Your task to perform on an android device: toggle notifications settings in the gmail app Image 0: 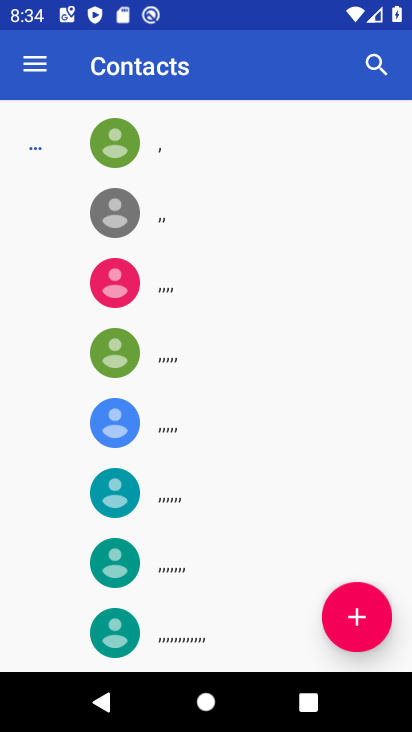
Step 0: press home button
Your task to perform on an android device: toggle notifications settings in the gmail app Image 1: 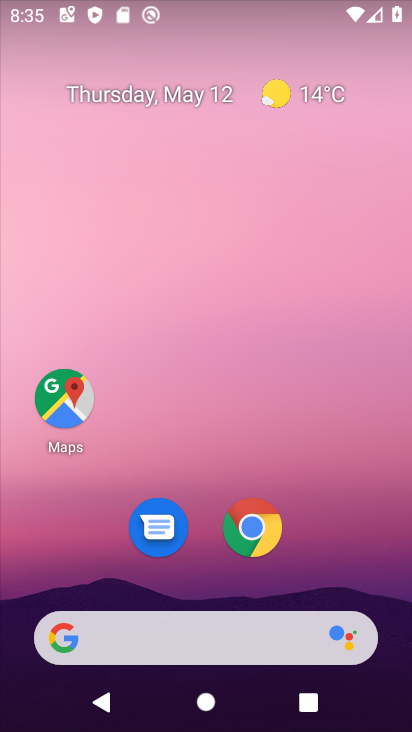
Step 1: drag from (345, 556) to (341, 2)
Your task to perform on an android device: toggle notifications settings in the gmail app Image 2: 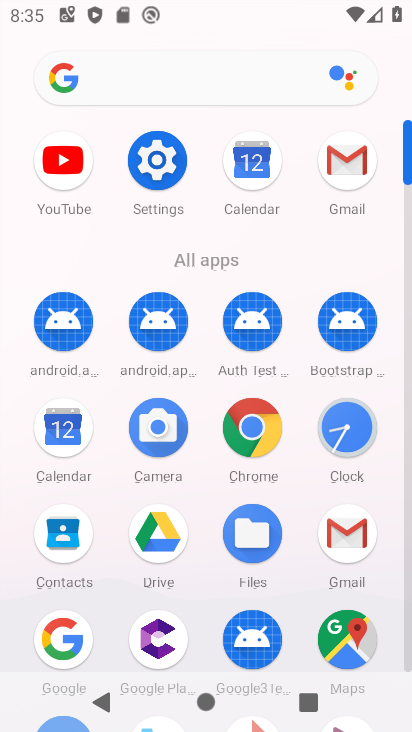
Step 2: click (341, 153)
Your task to perform on an android device: toggle notifications settings in the gmail app Image 3: 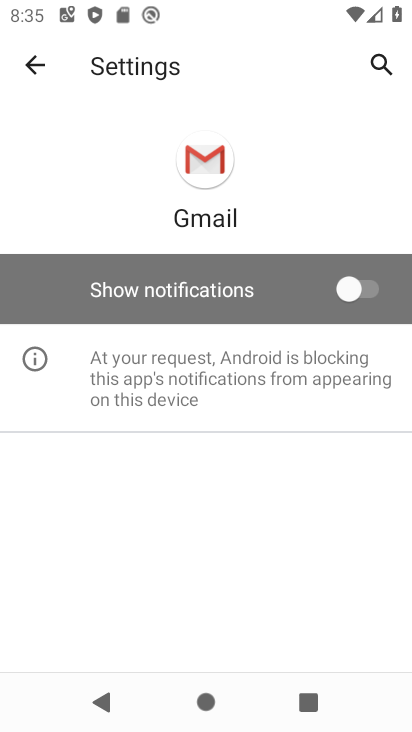
Step 3: click (324, 274)
Your task to perform on an android device: toggle notifications settings in the gmail app Image 4: 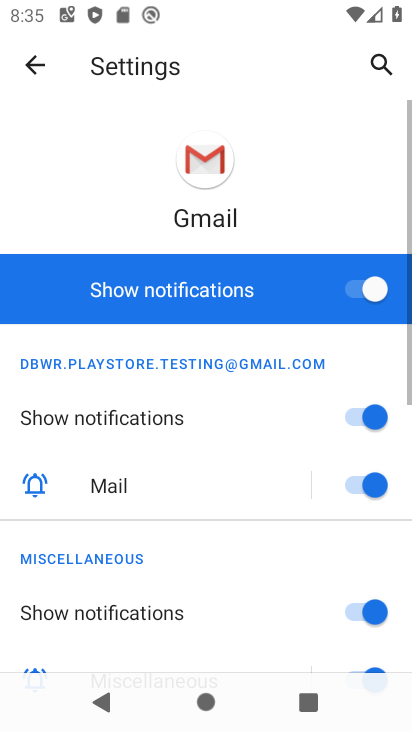
Step 4: task complete